Your task to perform on an android device: Search for vegetarian restaurants on Maps Image 0: 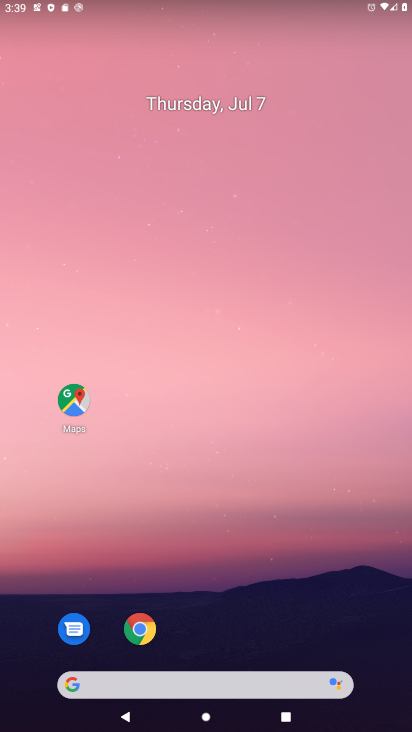
Step 0: click (71, 407)
Your task to perform on an android device: Search for vegetarian restaurants on Maps Image 1: 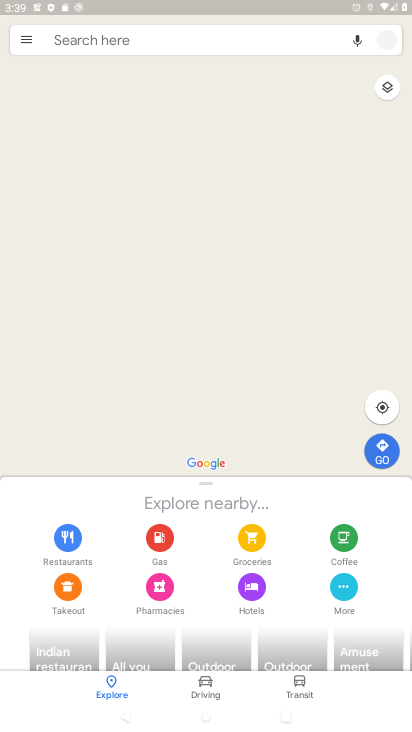
Step 1: click (177, 37)
Your task to perform on an android device: Search for vegetarian restaurants on Maps Image 2: 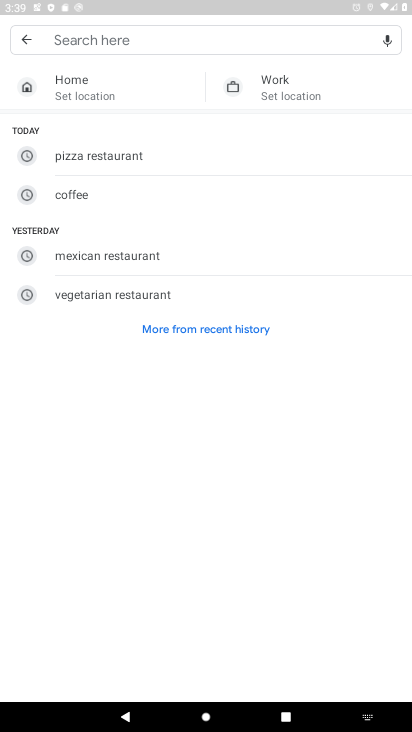
Step 2: click (123, 281)
Your task to perform on an android device: Search for vegetarian restaurants on Maps Image 3: 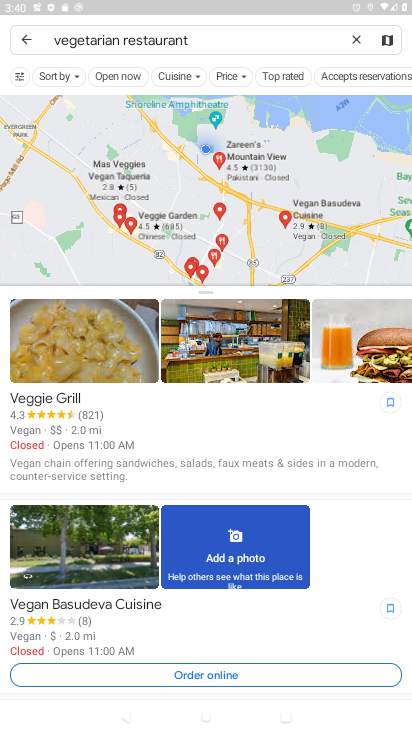
Step 3: task complete